Your task to perform on an android device: Open wifi settings Image 0: 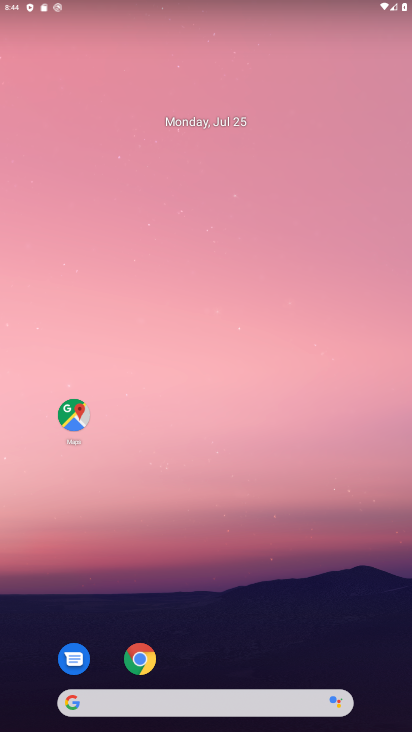
Step 0: drag from (221, 648) to (219, 79)
Your task to perform on an android device: Open wifi settings Image 1: 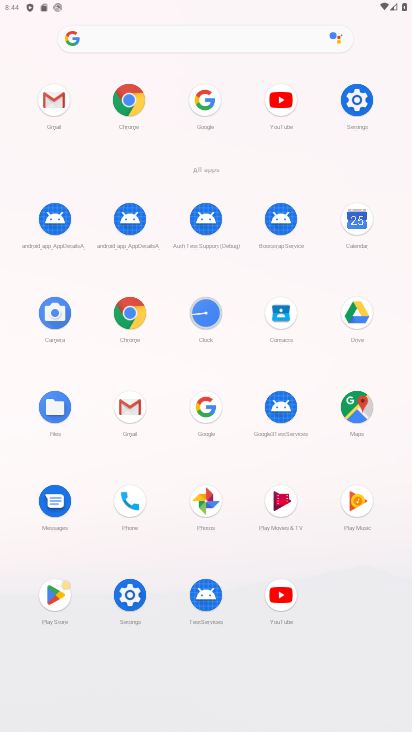
Step 1: click (343, 110)
Your task to perform on an android device: Open wifi settings Image 2: 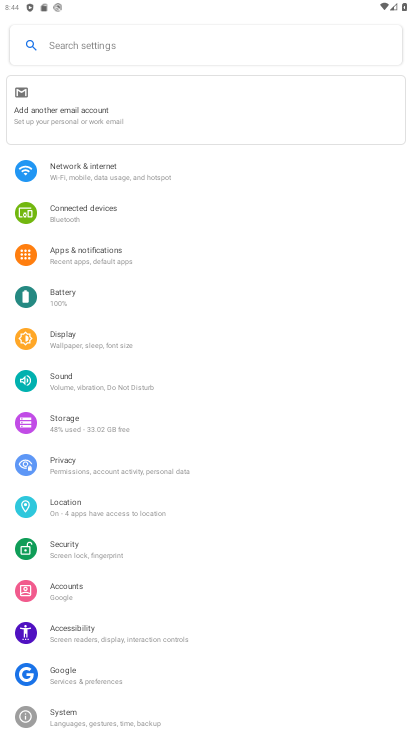
Step 2: click (105, 188)
Your task to perform on an android device: Open wifi settings Image 3: 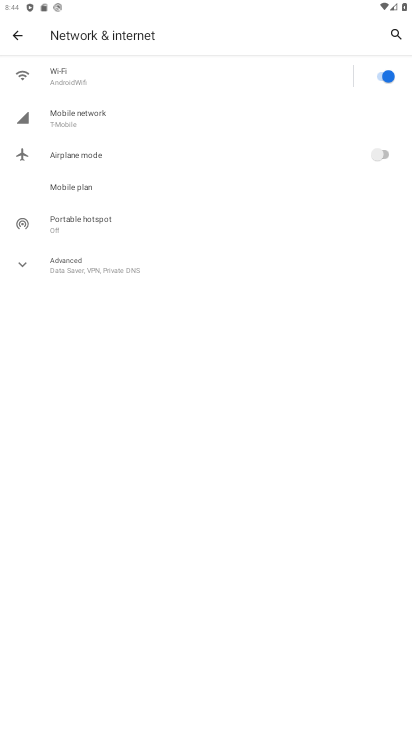
Step 3: click (127, 82)
Your task to perform on an android device: Open wifi settings Image 4: 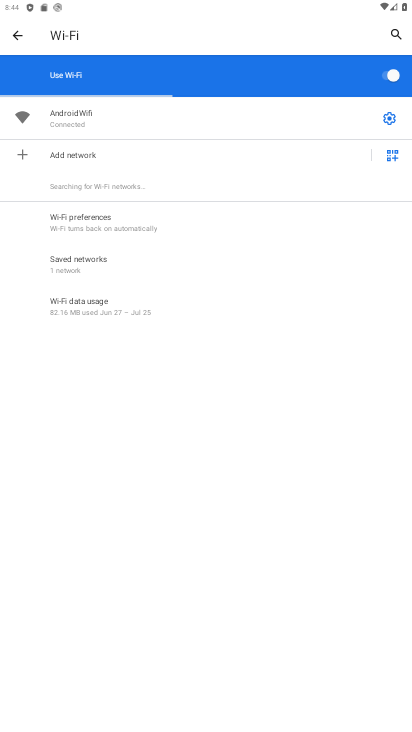
Step 4: click (139, 109)
Your task to perform on an android device: Open wifi settings Image 5: 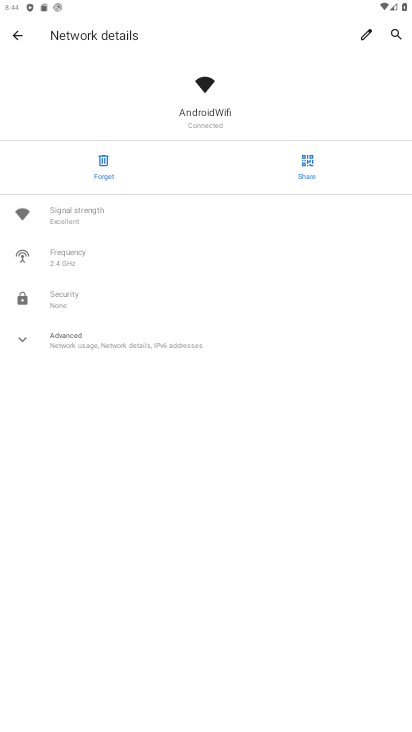
Step 5: task complete